Your task to perform on an android device: turn on the 24-hour format for clock Image 0: 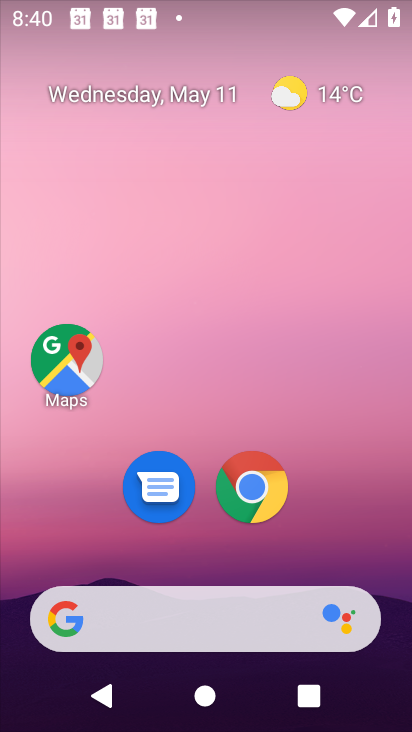
Step 0: drag from (225, 728) to (213, 152)
Your task to perform on an android device: turn on the 24-hour format for clock Image 1: 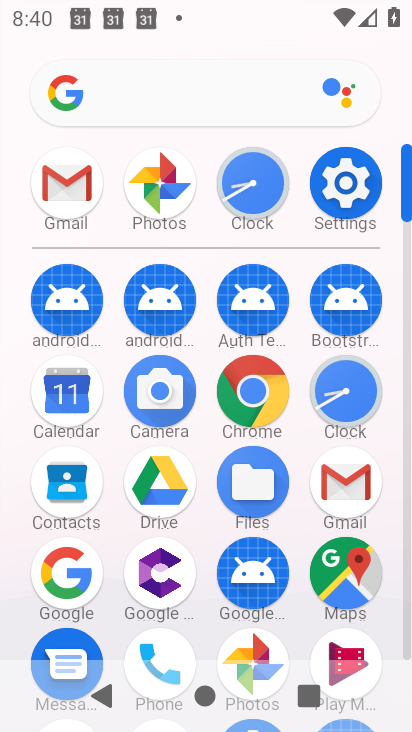
Step 1: click (345, 392)
Your task to perform on an android device: turn on the 24-hour format for clock Image 2: 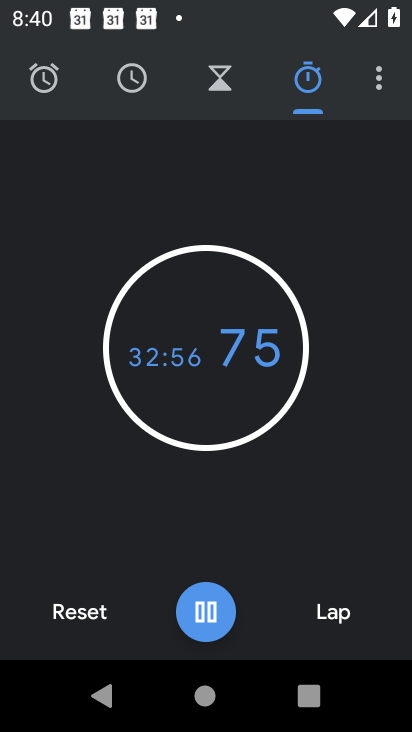
Step 2: click (381, 89)
Your task to perform on an android device: turn on the 24-hour format for clock Image 3: 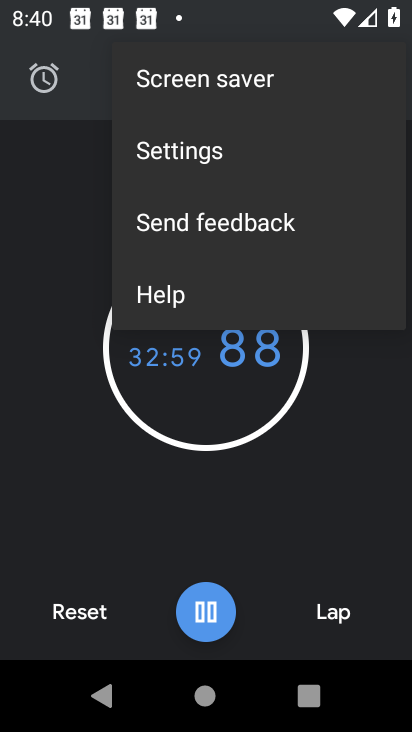
Step 3: click (178, 153)
Your task to perform on an android device: turn on the 24-hour format for clock Image 4: 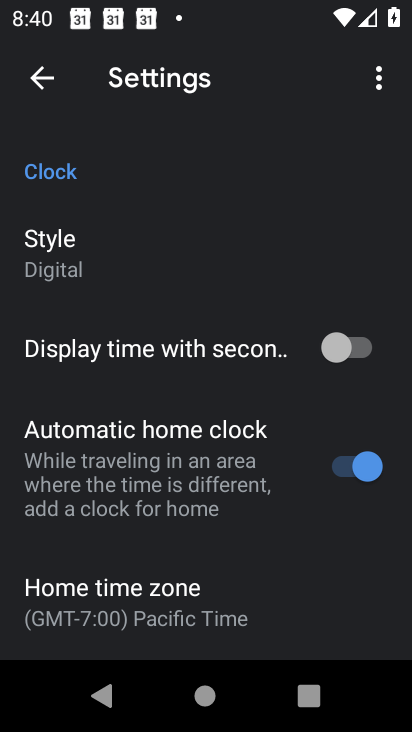
Step 4: drag from (144, 557) to (156, 141)
Your task to perform on an android device: turn on the 24-hour format for clock Image 5: 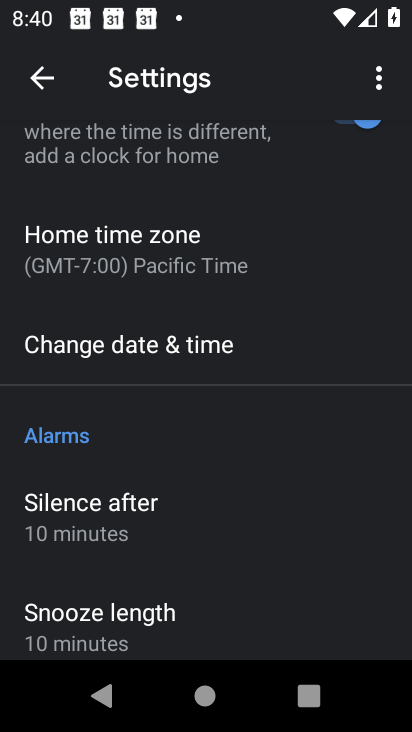
Step 5: click (130, 336)
Your task to perform on an android device: turn on the 24-hour format for clock Image 6: 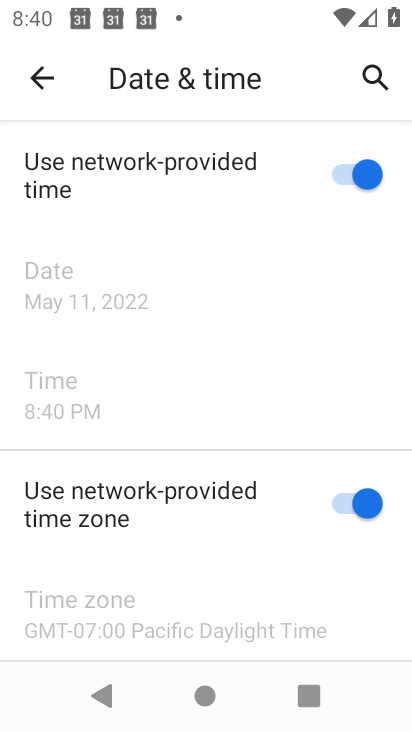
Step 6: drag from (160, 595) to (167, 197)
Your task to perform on an android device: turn on the 24-hour format for clock Image 7: 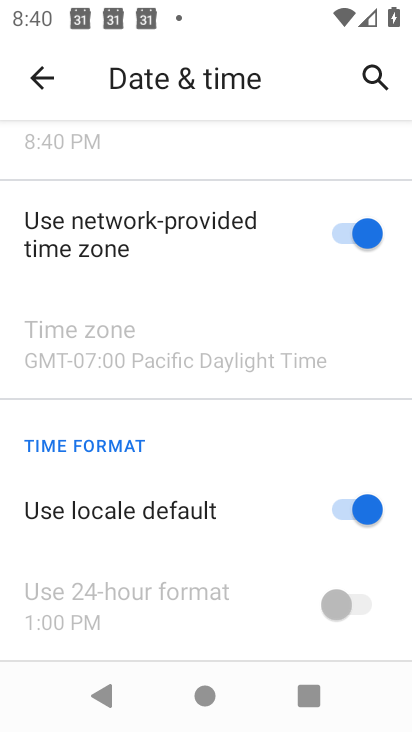
Step 7: click (352, 515)
Your task to perform on an android device: turn on the 24-hour format for clock Image 8: 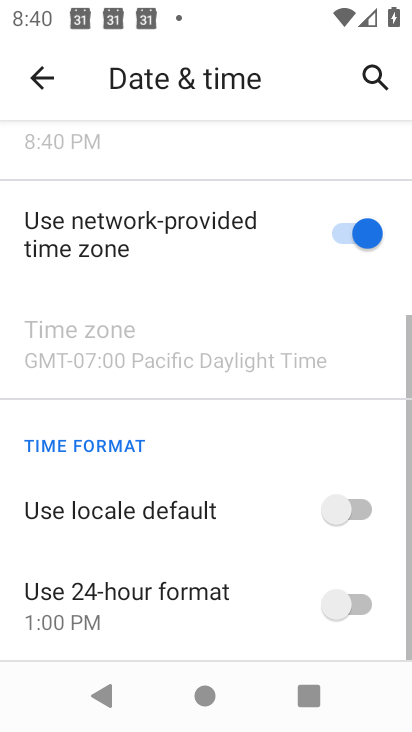
Step 8: click (358, 602)
Your task to perform on an android device: turn on the 24-hour format for clock Image 9: 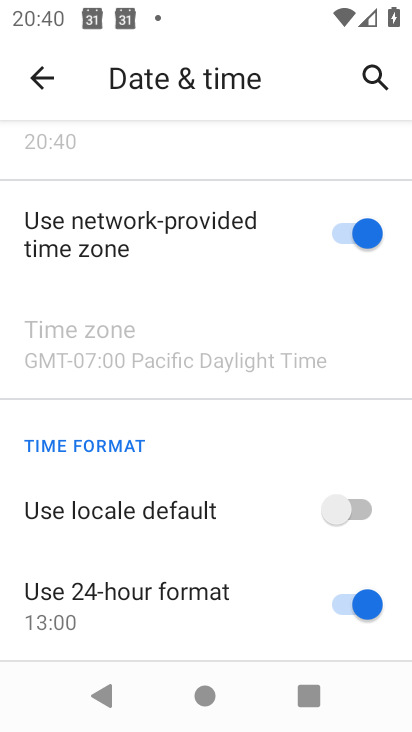
Step 9: task complete